Your task to perform on an android device: turn off airplane mode Image 0: 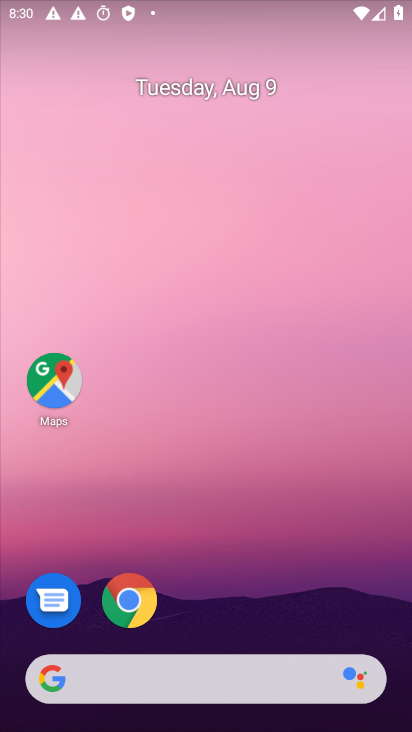
Step 0: click (239, 85)
Your task to perform on an android device: turn off airplane mode Image 1: 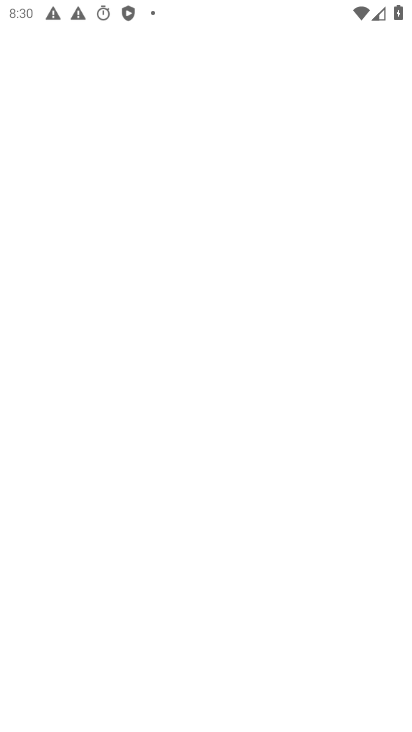
Step 1: task complete